Your task to perform on an android device: turn on sleep mode Image 0: 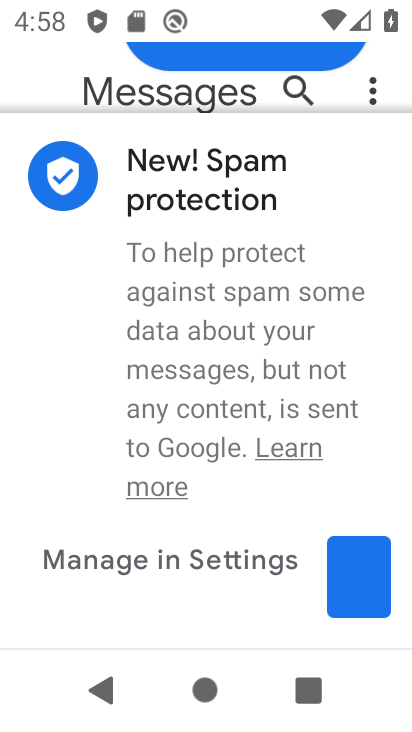
Step 0: press back button
Your task to perform on an android device: turn on sleep mode Image 1: 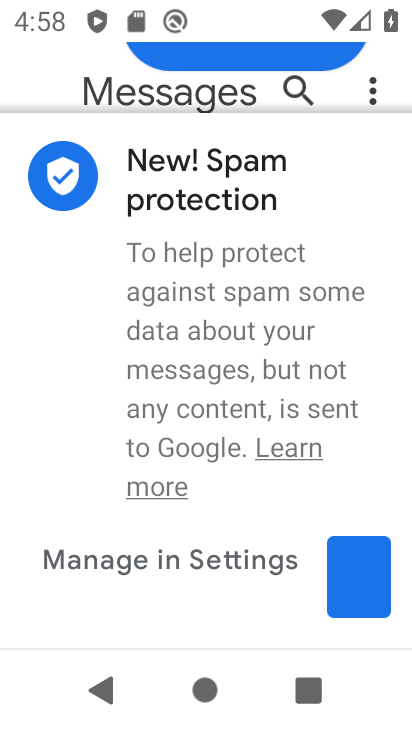
Step 1: press back button
Your task to perform on an android device: turn on sleep mode Image 2: 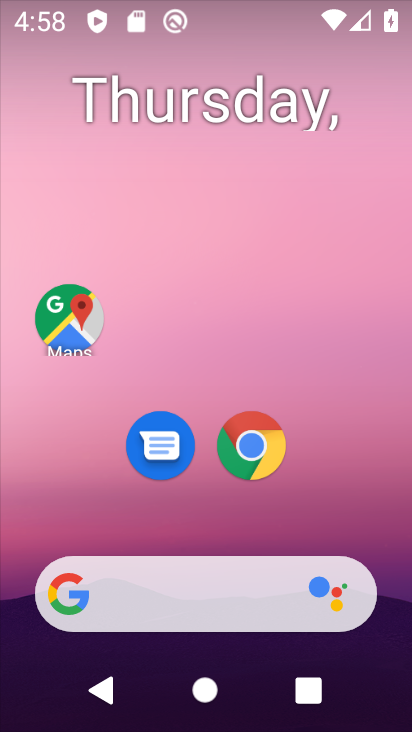
Step 2: drag from (274, 649) to (203, 164)
Your task to perform on an android device: turn on sleep mode Image 3: 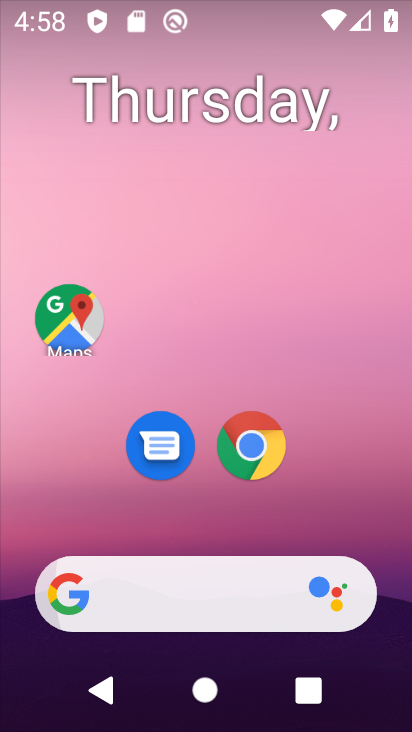
Step 3: drag from (284, 469) to (177, 13)
Your task to perform on an android device: turn on sleep mode Image 4: 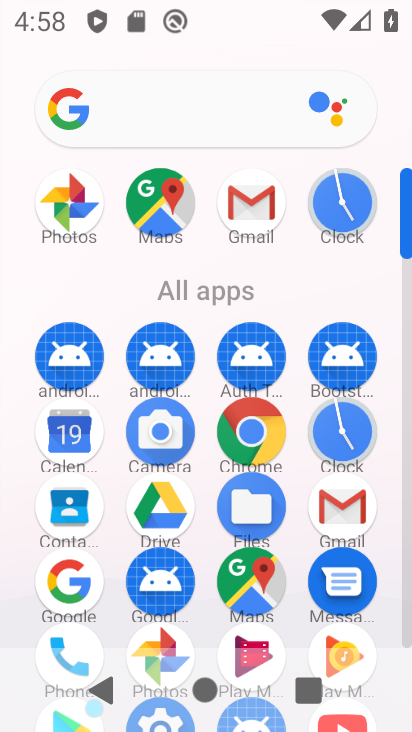
Step 4: drag from (214, 377) to (166, 49)
Your task to perform on an android device: turn on sleep mode Image 5: 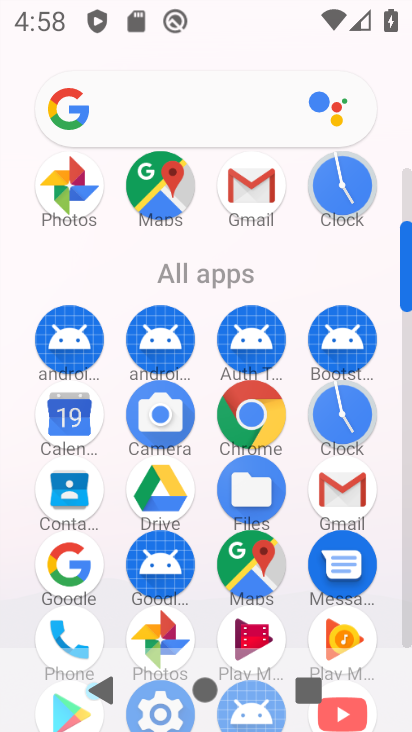
Step 5: drag from (215, 491) to (202, 301)
Your task to perform on an android device: turn on sleep mode Image 6: 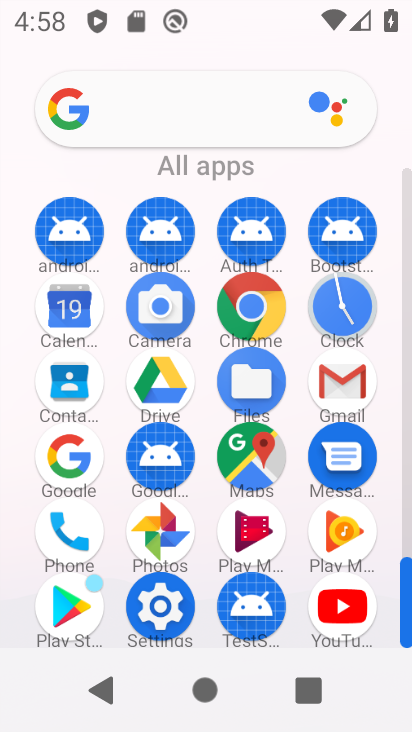
Step 6: drag from (174, 417) to (190, 75)
Your task to perform on an android device: turn on sleep mode Image 7: 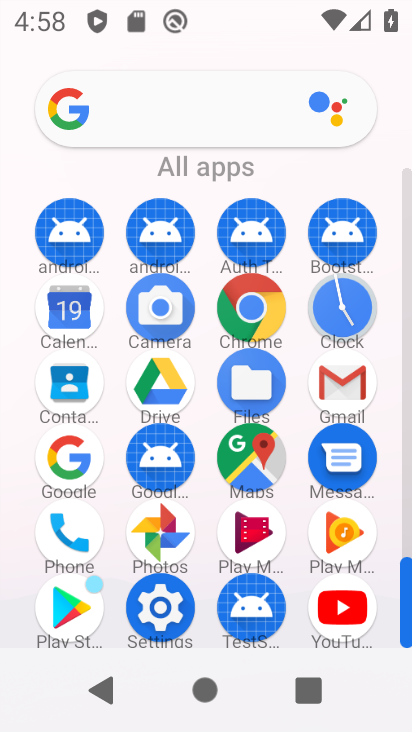
Step 7: click (162, 606)
Your task to perform on an android device: turn on sleep mode Image 8: 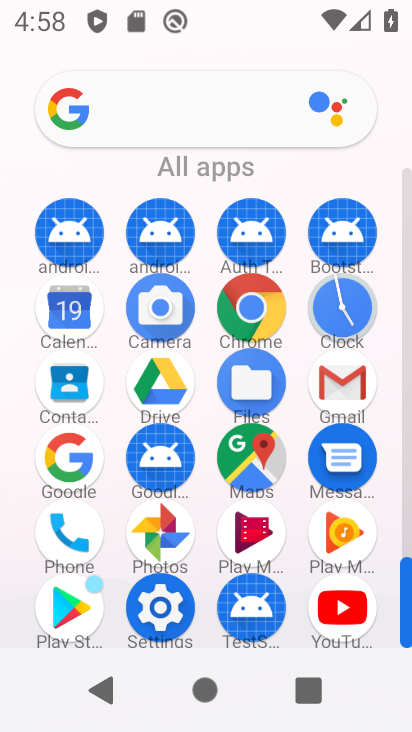
Step 8: click (164, 605)
Your task to perform on an android device: turn on sleep mode Image 9: 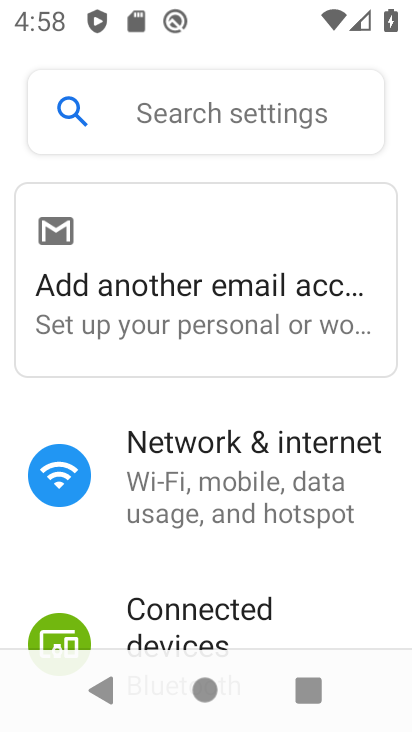
Step 9: drag from (223, 560) to (212, 180)
Your task to perform on an android device: turn on sleep mode Image 10: 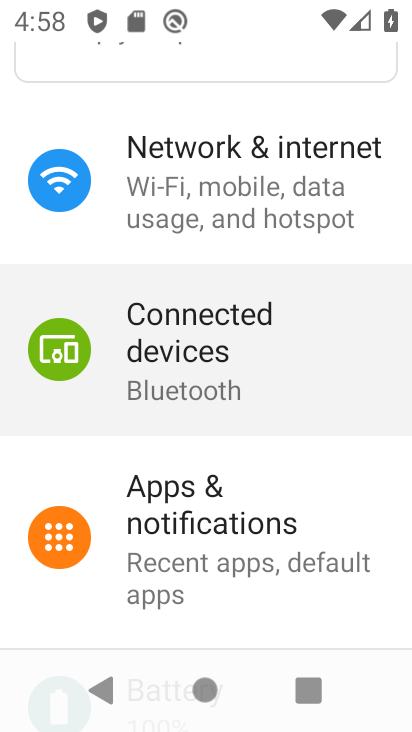
Step 10: drag from (260, 430) to (243, 174)
Your task to perform on an android device: turn on sleep mode Image 11: 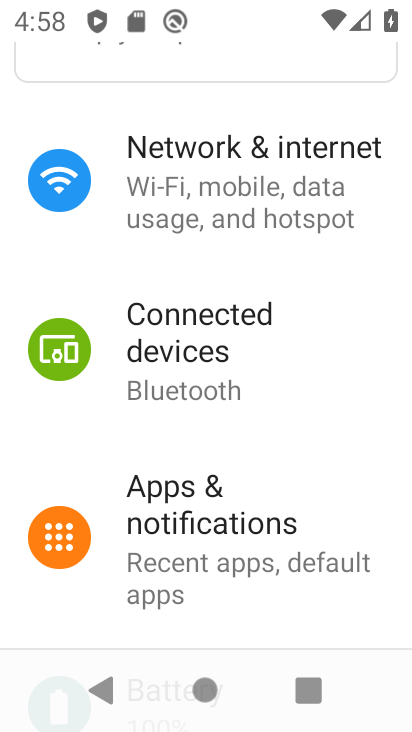
Step 11: drag from (266, 459) to (250, 166)
Your task to perform on an android device: turn on sleep mode Image 12: 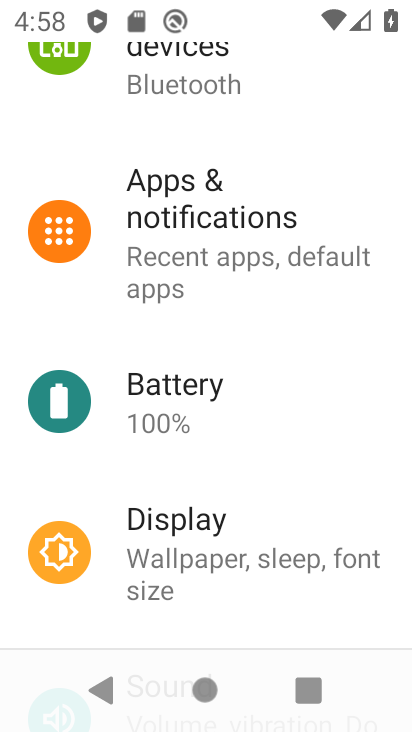
Step 12: drag from (214, 498) to (214, 155)
Your task to perform on an android device: turn on sleep mode Image 13: 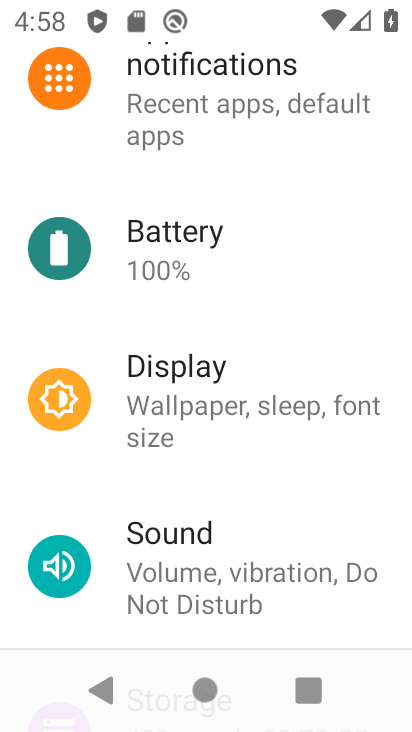
Step 13: drag from (232, 413) to (210, 72)
Your task to perform on an android device: turn on sleep mode Image 14: 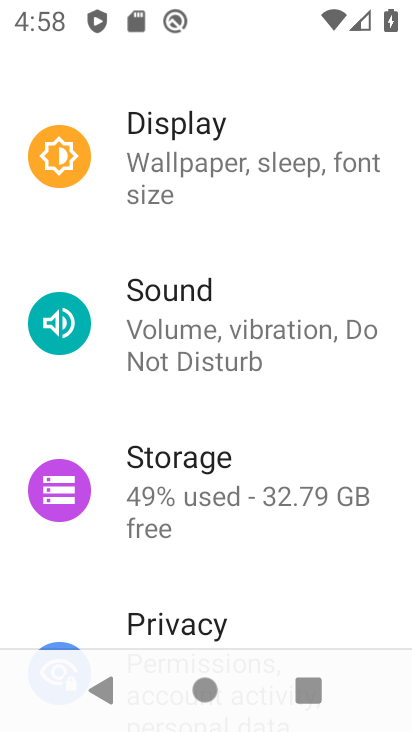
Step 14: drag from (236, 539) to (220, 178)
Your task to perform on an android device: turn on sleep mode Image 15: 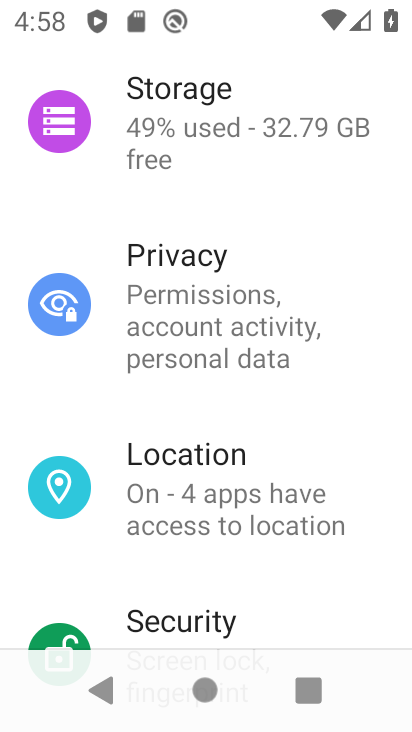
Step 15: click (197, 153)
Your task to perform on an android device: turn on sleep mode Image 16: 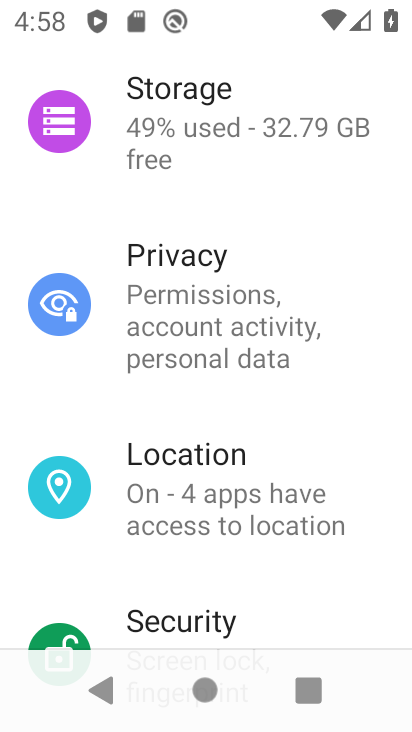
Step 16: drag from (246, 518) to (240, 121)
Your task to perform on an android device: turn on sleep mode Image 17: 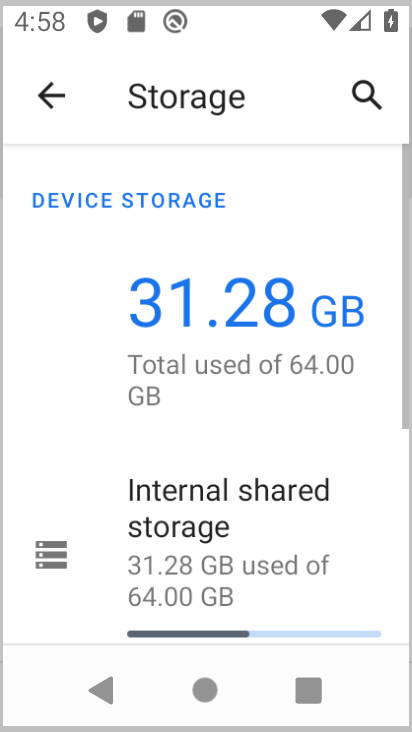
Step 17: drag from (242, 331) to (213, 68)
Your task to perform on an android device: turn on sleep mode Image 18: 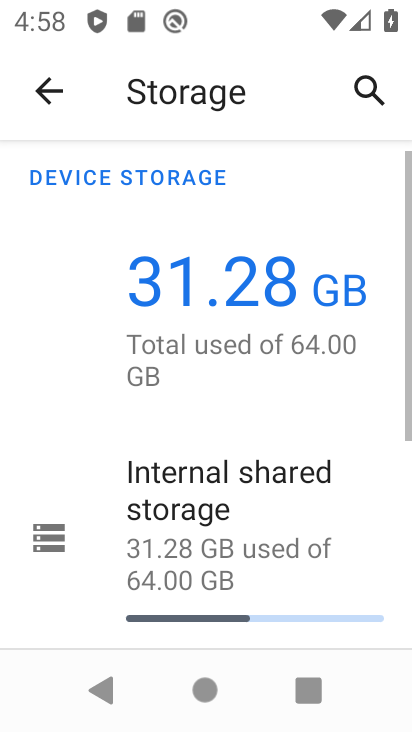
Step 18: drag from (208, 449) to (180, 126)
Your task to perform on an android device: turn on sleep mode Image 19: 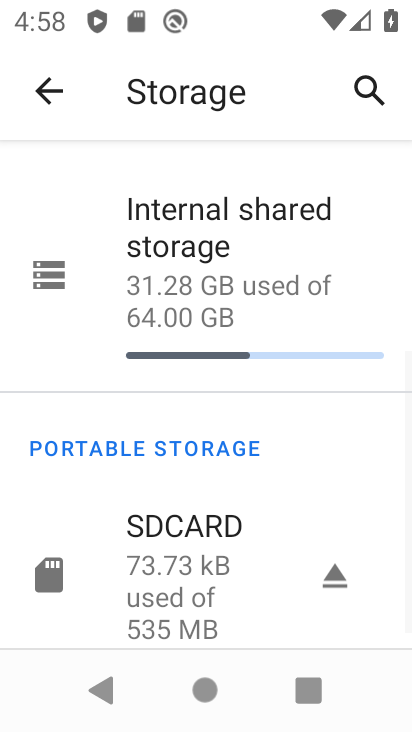
Step 19: click (51, 91)
Your task to perform on an android device: turn on sleep mode Image 20: 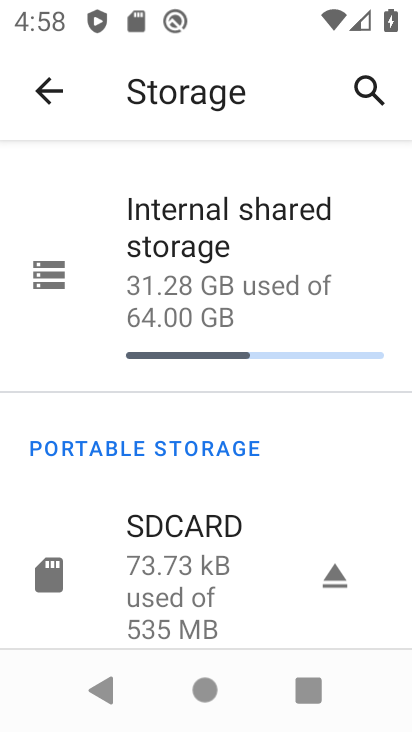
Step 20: click (51, 91)
Your task to perform on an android device: turn on sleep mode Image 21: 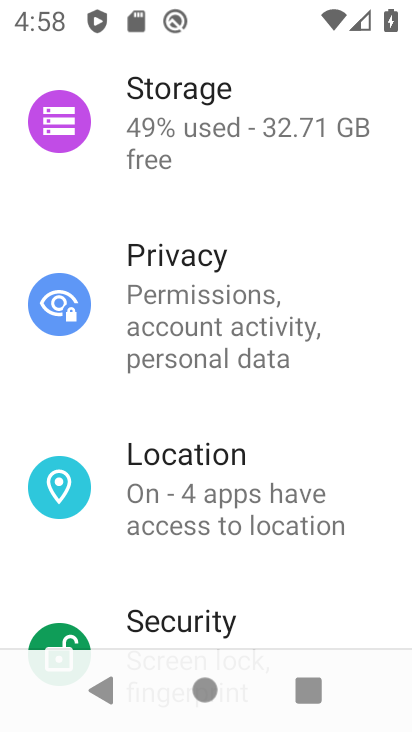
Step 21: drag from (247, 496) to (182, 43)
Your task to perform on an android device: turn on sleep mode Image 22: 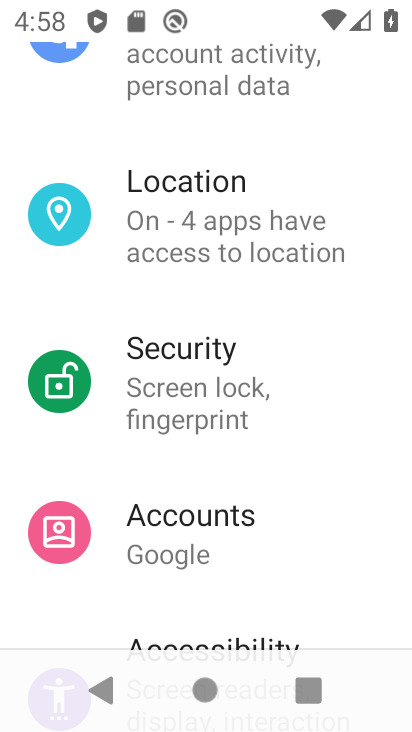
Step 22: drag from (234, 481) to (121, 19)
Your task to perform on an android device: turn on sleep mode Image 23: 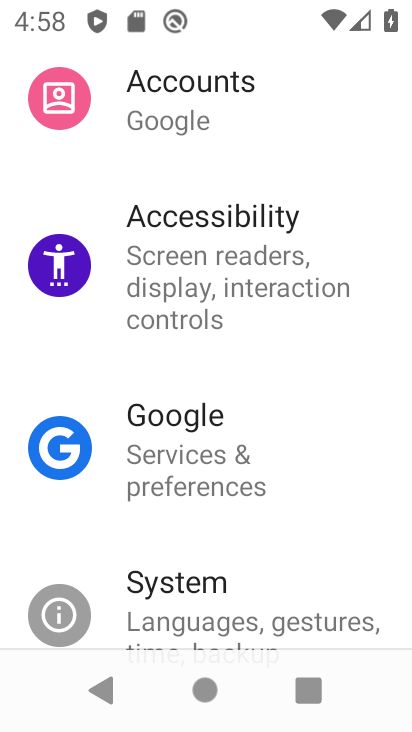
Step 23: drag from (236, 484) to (154, 20)
Your task to perform on an android device: turn on sleep mode Image 24: 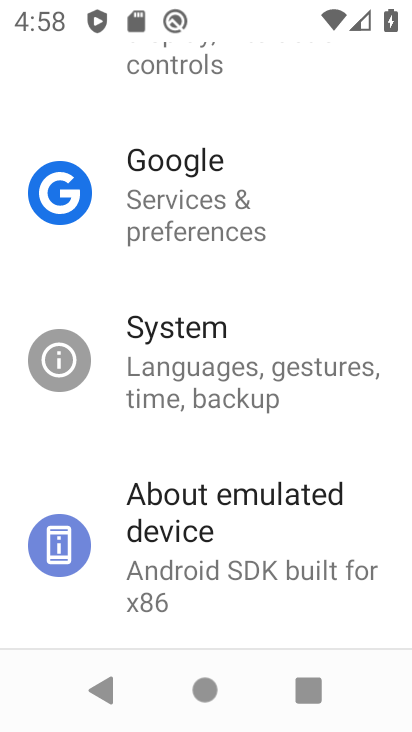
Step 24: drag from (200, 202) to (285, 635)
Your task to perform on an android device: turn on sleep mode Image 25: 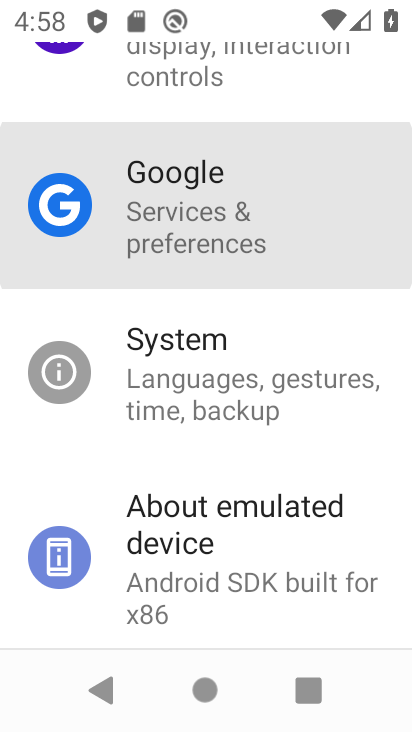
Step 25: drag from (203, 283) to (267, 627)
Your task to perform on an android device: turn on sleep mode Image 26: 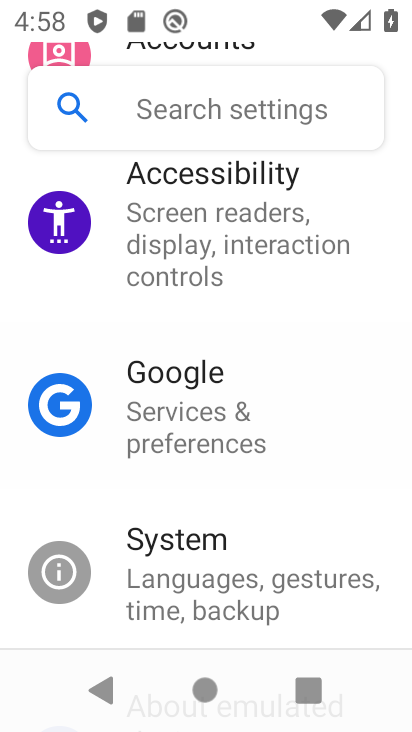
Step 26: drag from (181, 280) to (296, 702)
Your task to perform on an android device: turn on sleep mode Image 27: 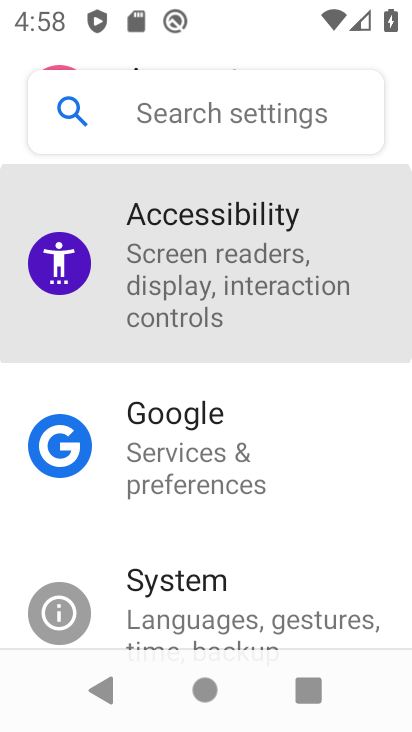
Step 27: drag from (231, 261) to (313, 654)
Your task to perform on an android device: turn on sleep mode Image 28: 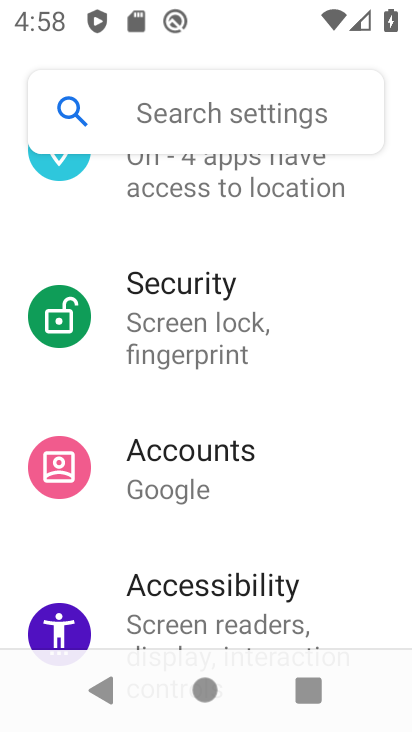
Step 28: drag from (238, 295) to (304, 708)
Your task to perform on an android device: turn on sleep mode Image 29: 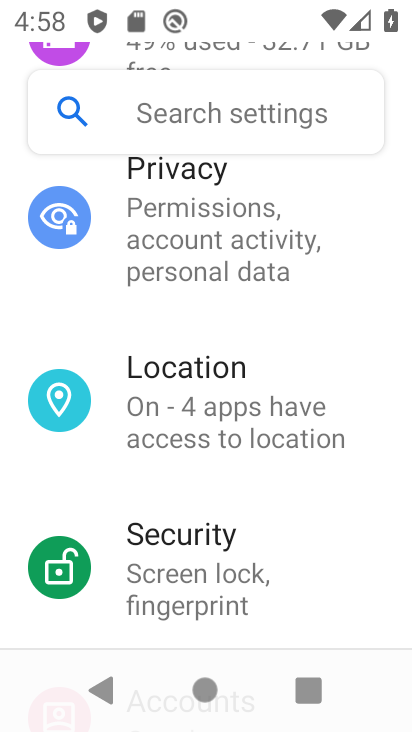
Step 29: drag from (225, 278) to (285, 699)
Your task to perform on an android device: turn on sleep mode Image 30: 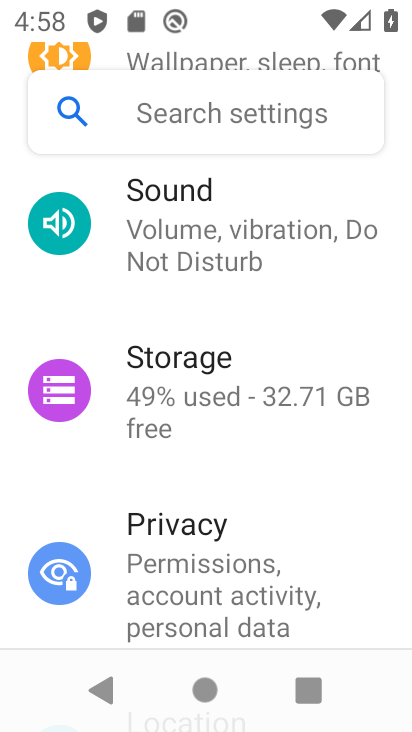
Step 30: drag from (129, 227) to (260, 692)
Your task to perform on an android device: turn on sleep mode Image 31: 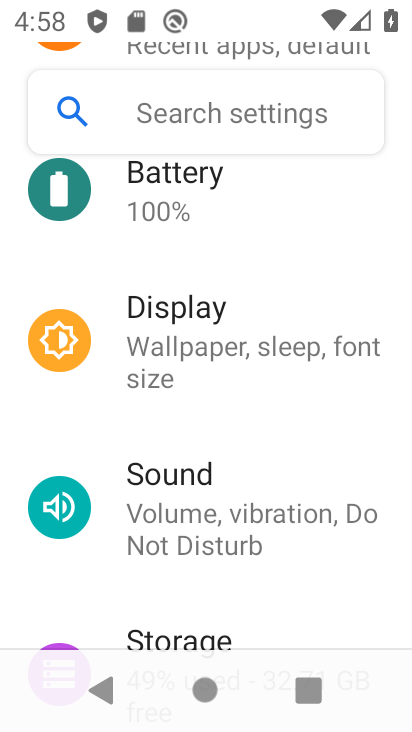
Step 31: drag from (210, 228) to (296, 708)
Your task to perform on an android device: turn on sleep mode Image 32: 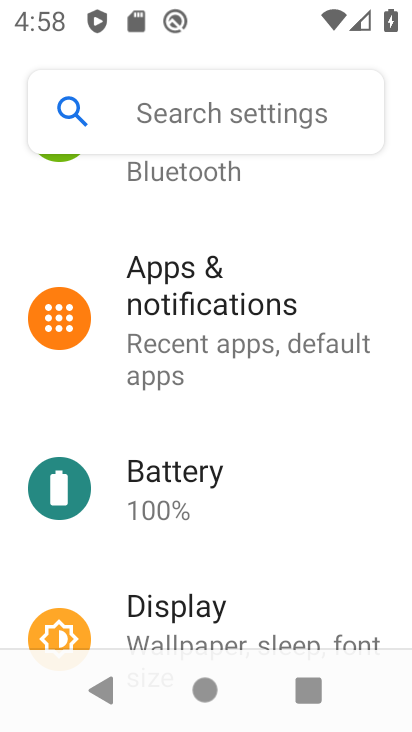
Step 32: drag from (213, 343) to (323, 629)
Your task to perform on an android device: turn on sleep mode Image 33: 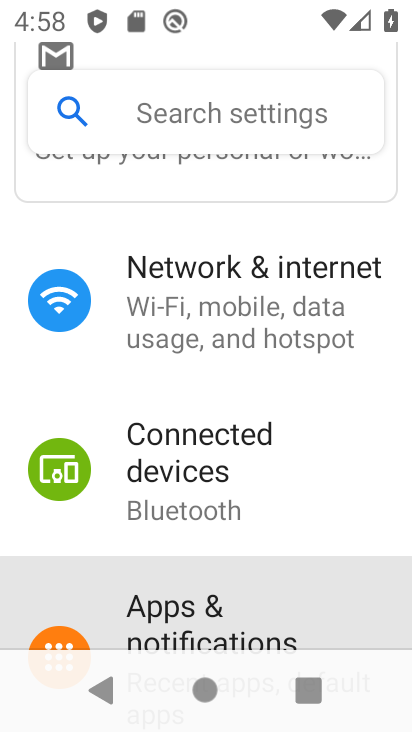
Step 33: drag from (210, 193) to (285, 688)
Your task to perform on an android device: turn on sleep mode Image 34: 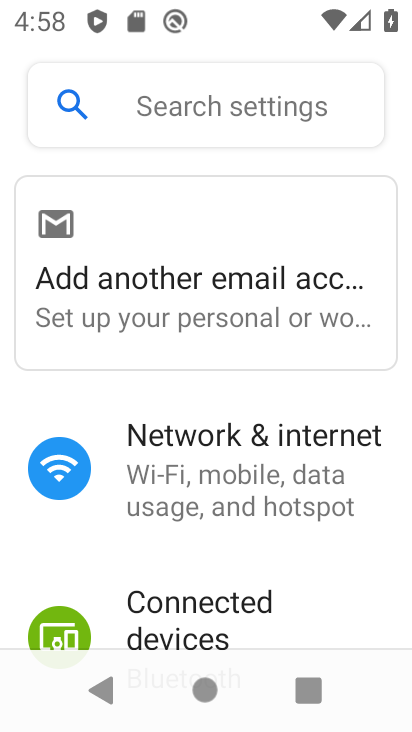
Step 34: drag from (163, 296) to (265, 641)
Your task to perform on an android device: turn on sleep mode Image 35: 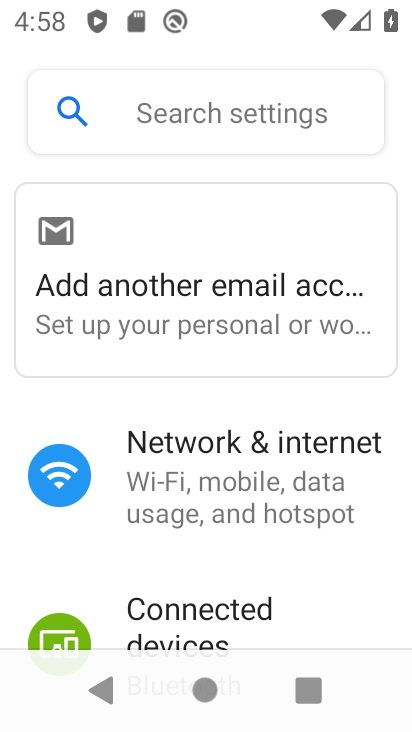
Step 35: click (231, 486)
Your task to perform on an android device: turn on sleep mode Image 36: 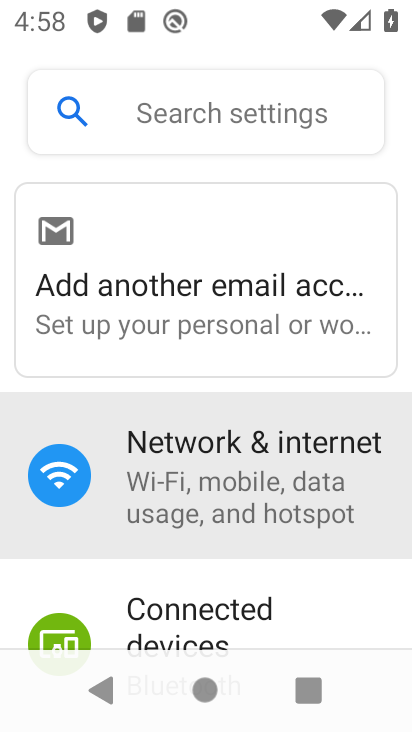
Step 36: click (230, 487)
Your task to perform on an android device: turn on sleep mode Image 37: 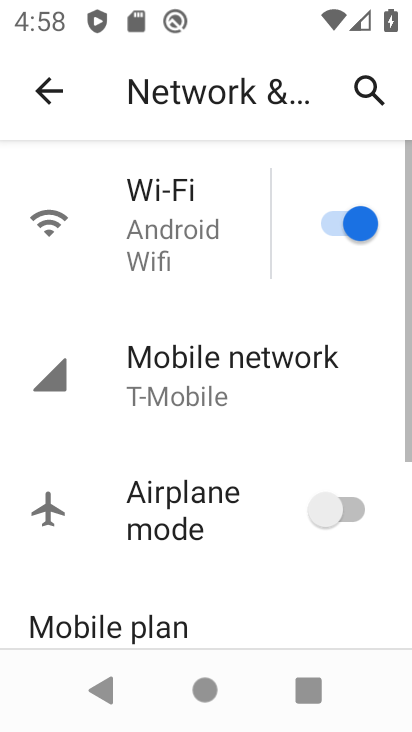
Step 37: click (55, 95)
Your task to perform on an android device: turn on sleep mode Image 38: 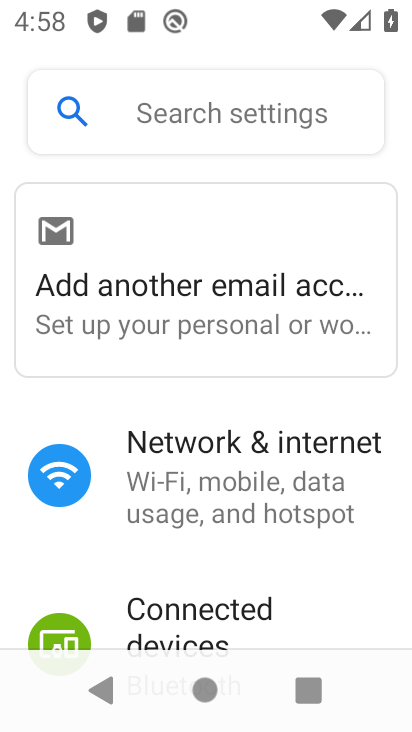
Step 38: drag from (242, 487) to (180, 29)
Your task to perform on an android device: turn on sleep mode Image 39: 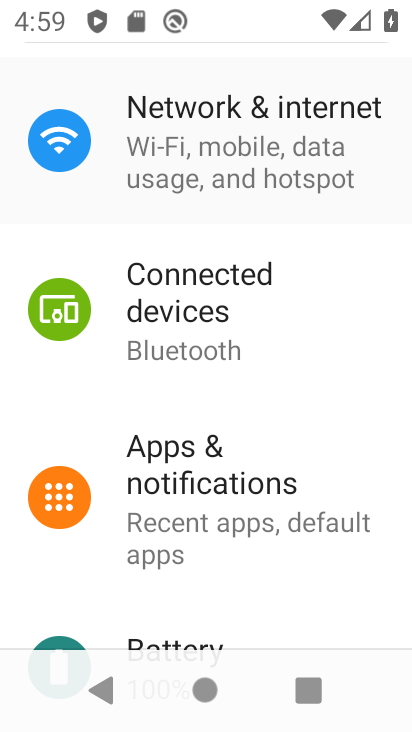
Step 39: drag from (220, 444) to (188, 115)
Your task to perform on an android device: turn on sleep mode Image 40: 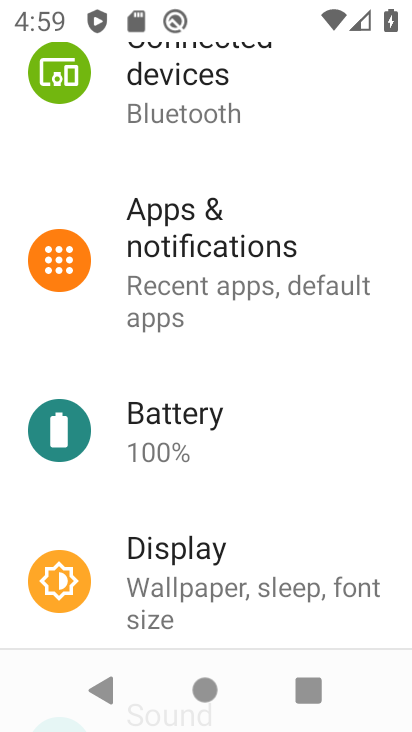
Step 40: drag from (214, 330) to (191, 87)
Your task to perform on an android device: turn on sleep mode Image 41: 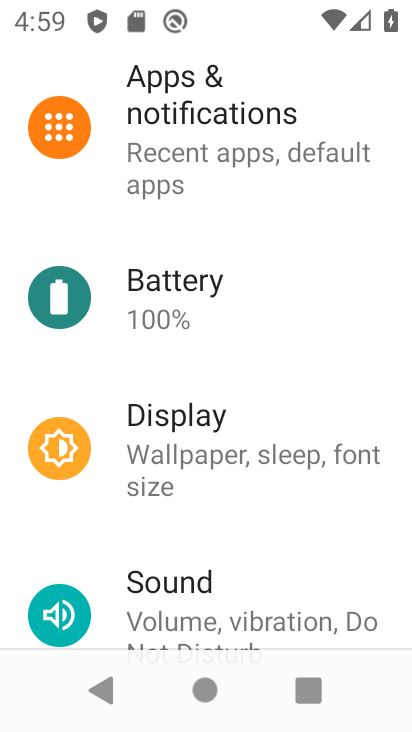
Step 41: click (180, 447)
Your task to perform on an android device: turn on sleep mode Image 42: 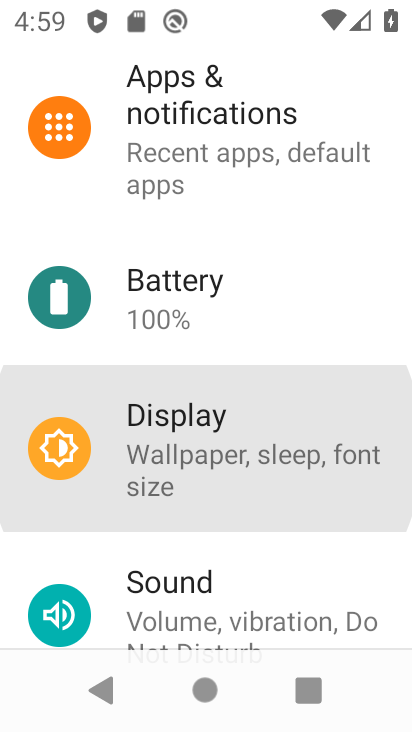
Step 42: click (179, 447)
Your task to perform on an android device: turn on sleep mode Image 43: 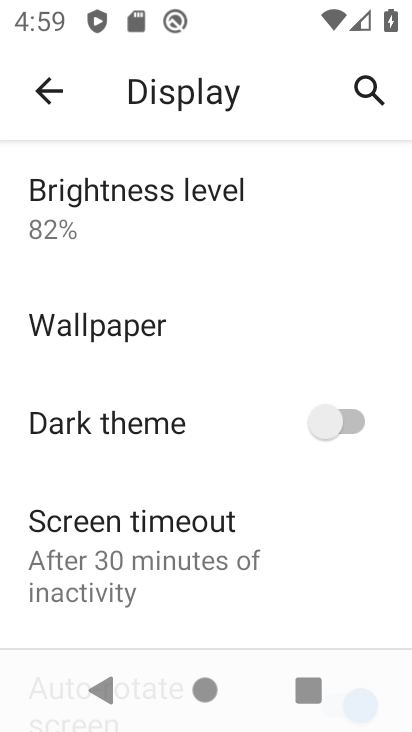
Step 43: task complete